Your task to perform on an android device: Add usb-c to usb-a to the cart on ebay Image 0: 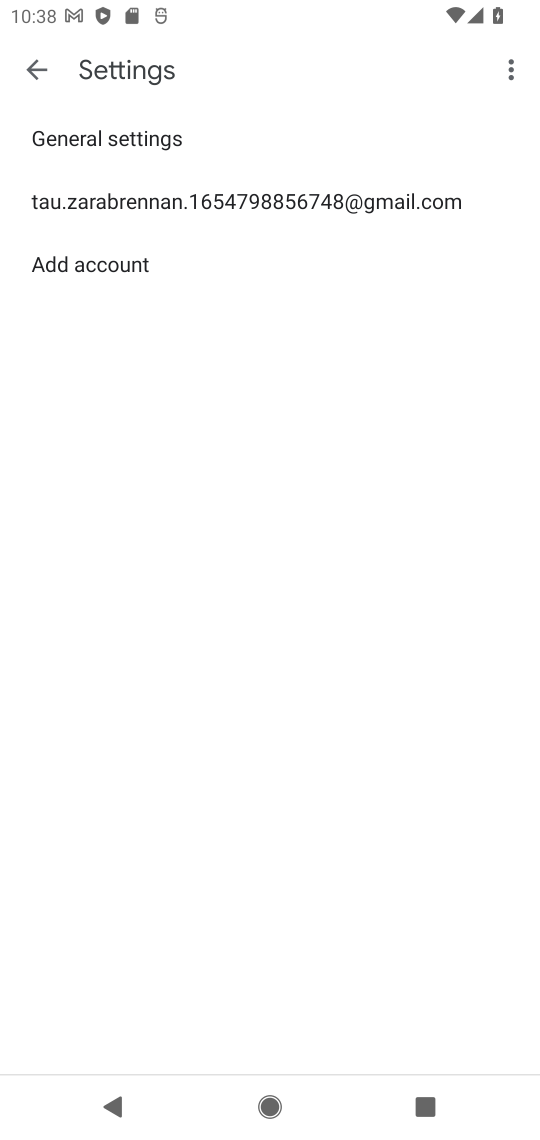
Step 0: press home button
Your task to perform on an android device: Add usb-c to usb-a to the cart on ebay Image 1: 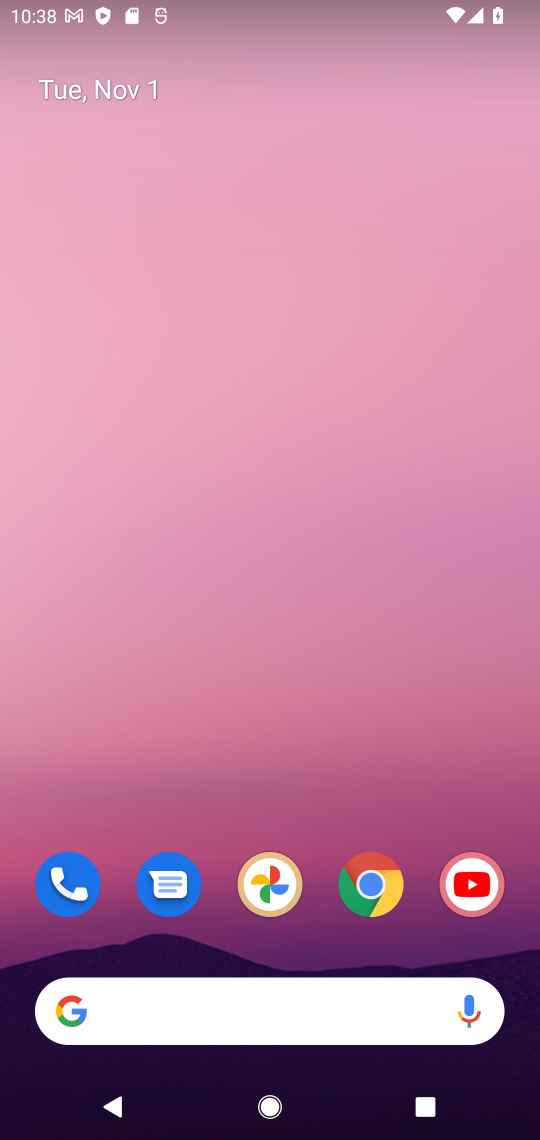
Step 1: click (368, 901)
Your task to perform on an android device: Add usb-c to usb-a to the cart on ebay Image 2: 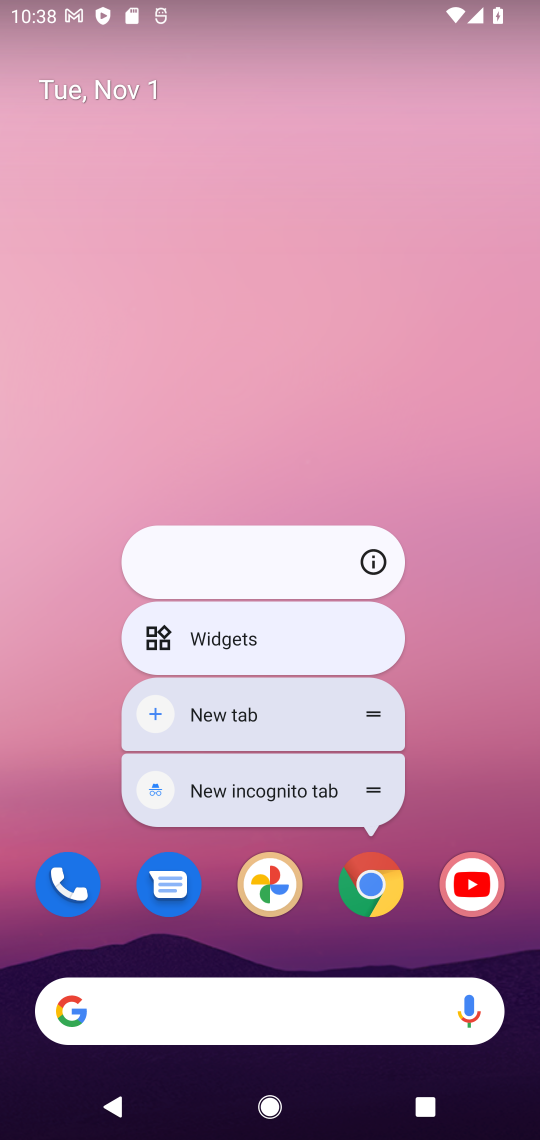
Step 2: click (370, 899)
Your task to perform on an android device: Add usb-c to usb-a to the cart on ebay Image 3: 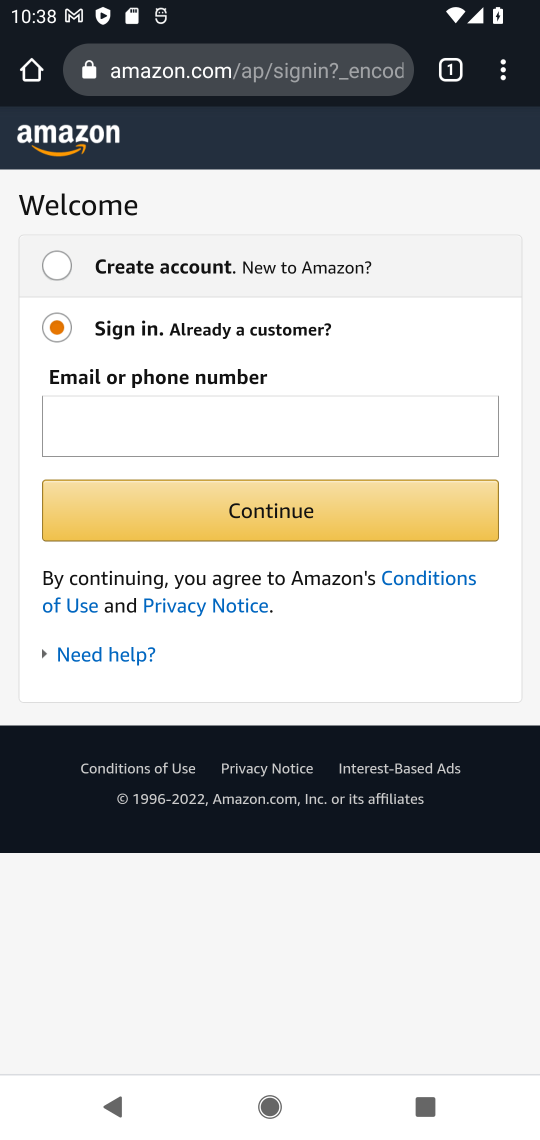
Step 3: click (290, 81)
Your task to perform on an android device: Add usb-c to usb-a to the cart on ebay Image 4: 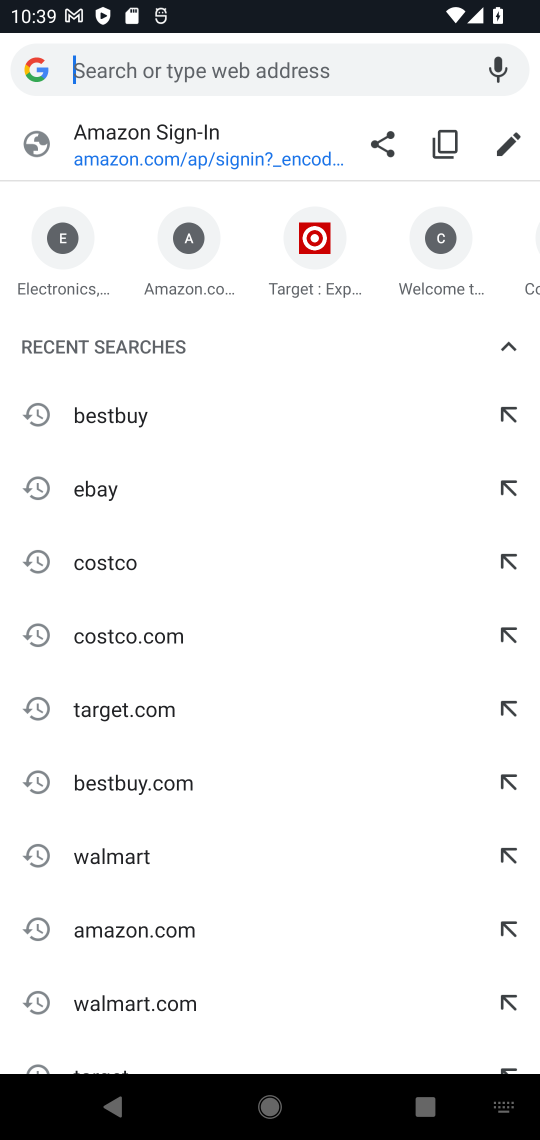
Step 4: type "ebay"
Your task to perform on an android device: Add usb-c to usb-a to the cart on ebay Image 5: 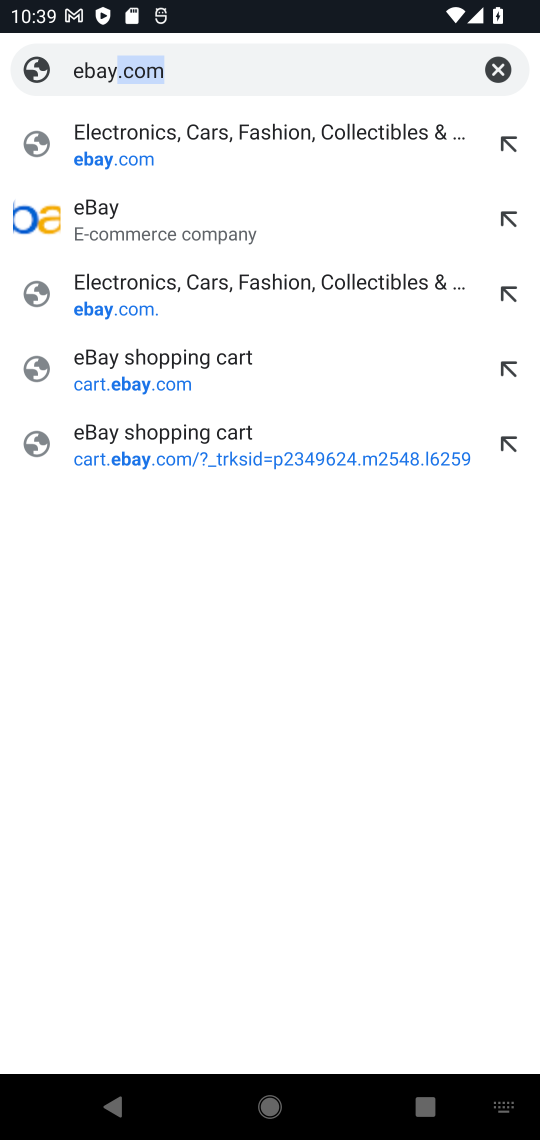
Step 5: press enter
Your task to perform on an android device: Add usb-c to usb-a to the cart on ebay Image 6: 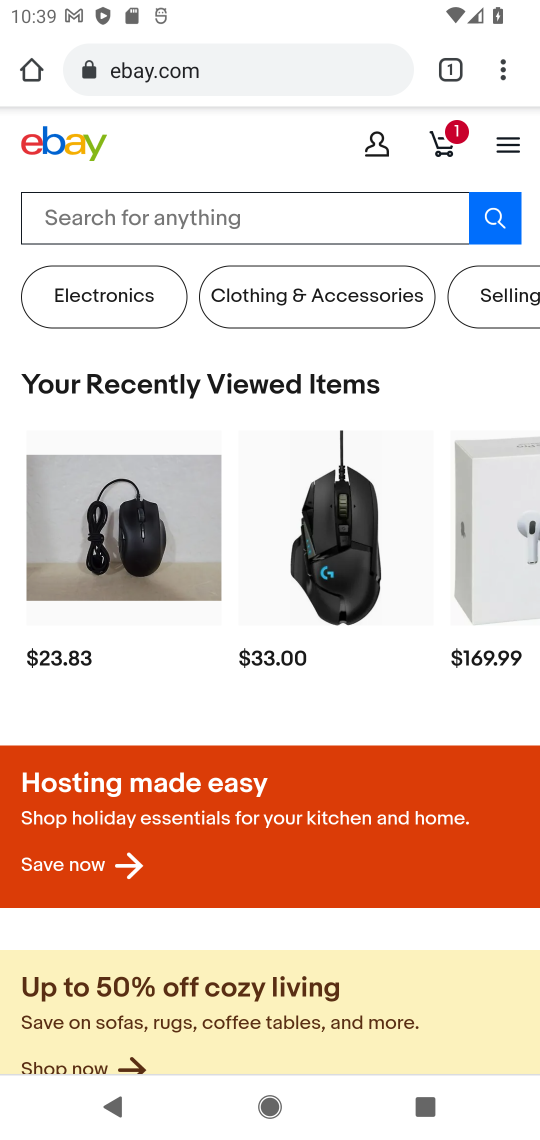
Step 6: click (227, 229)
Your task to perform on an android device: Add usb-c to usb-a to the cart on ebay Image 7: 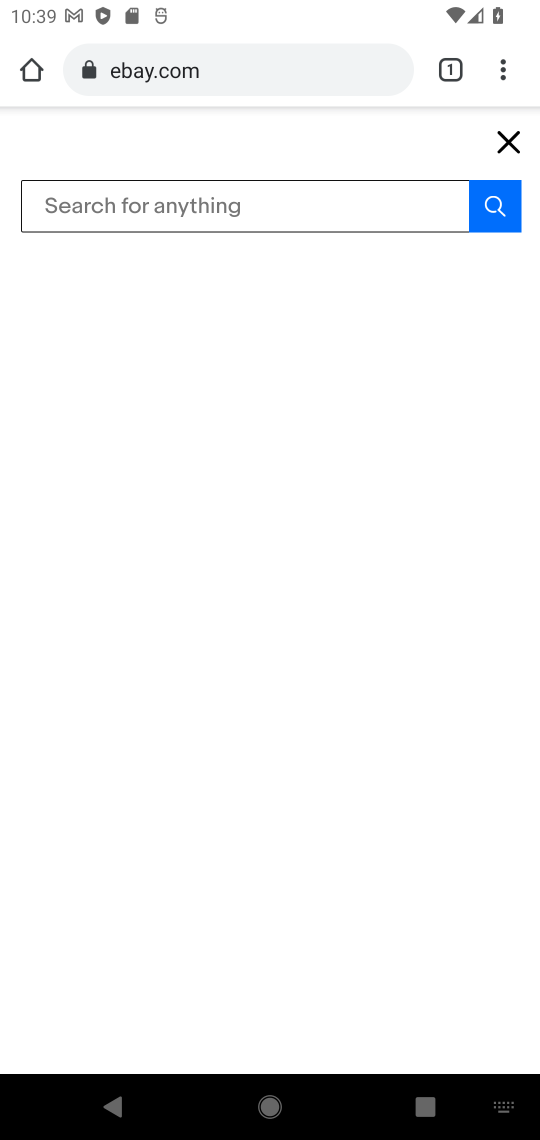
Step 7: type "usb-c to usb-a"
Your task to perform on an android device: Add usb-c to usb-a to the cart on ebay Image 8: 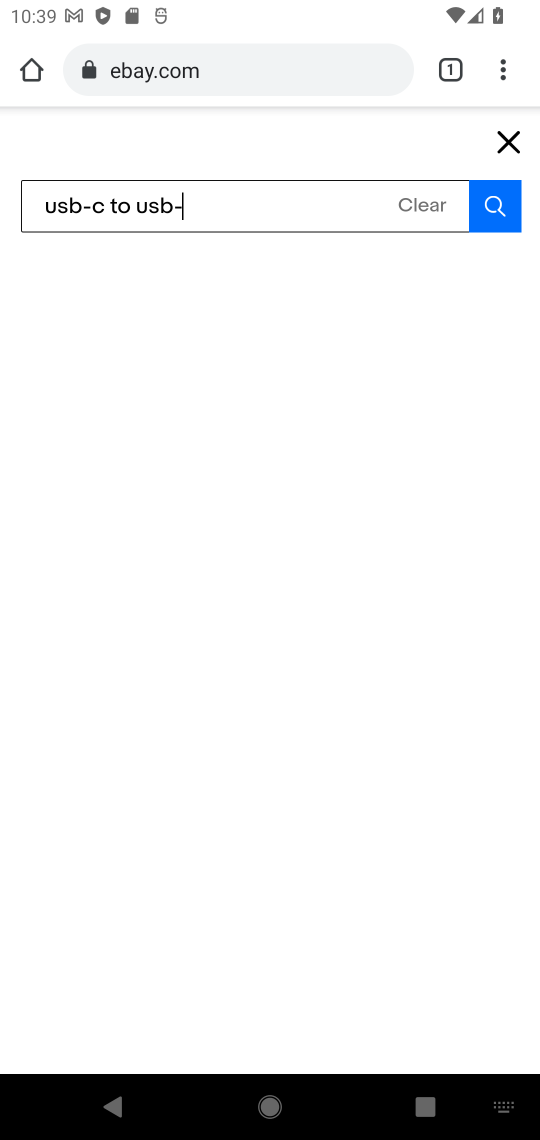
Step 8: type ""
Your task to perform on an android device: Add usb-c to usb-a to the cart on ebay Image 9: 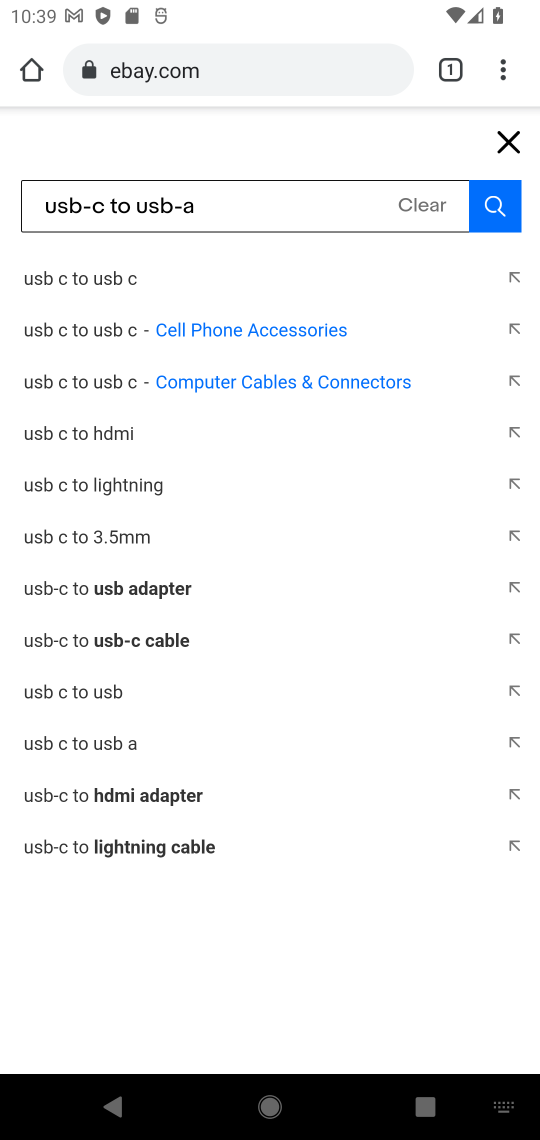
Step 9: click (506, 211)
Your task to perform on an android device: Add usb-c to usb-a to the cart on ebay Image 10: 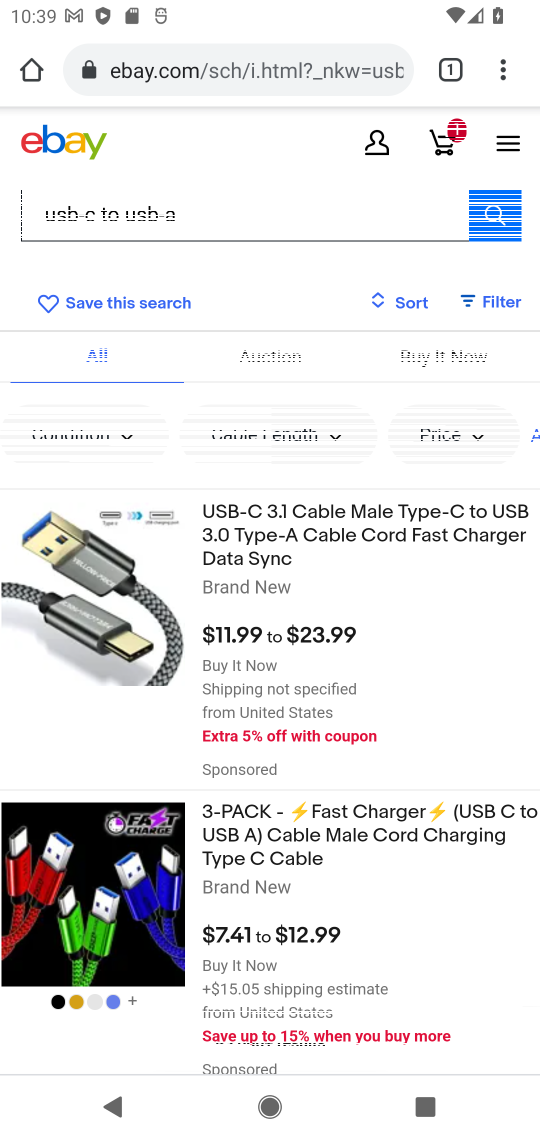
Step 10: click (349, 541)
Your task to perform on an android device: Add usb-c to usb-a to the cart on ebay Image 11: 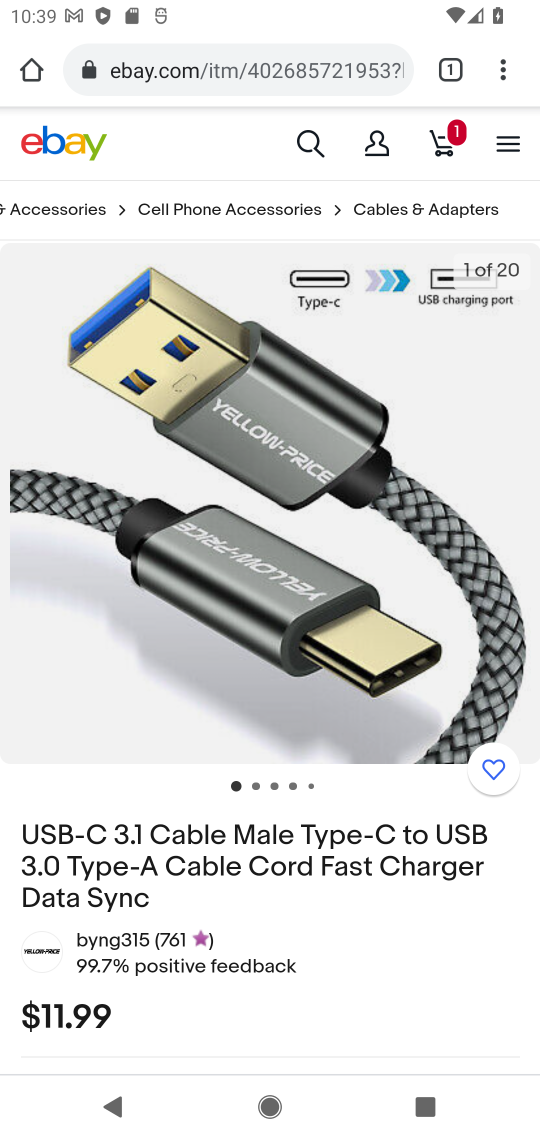
Step 11: drag from (414, 877) to (433, 324)
Your task to perform on an android device: Add usb-c to usb-a to the cart on ebay Image 12: 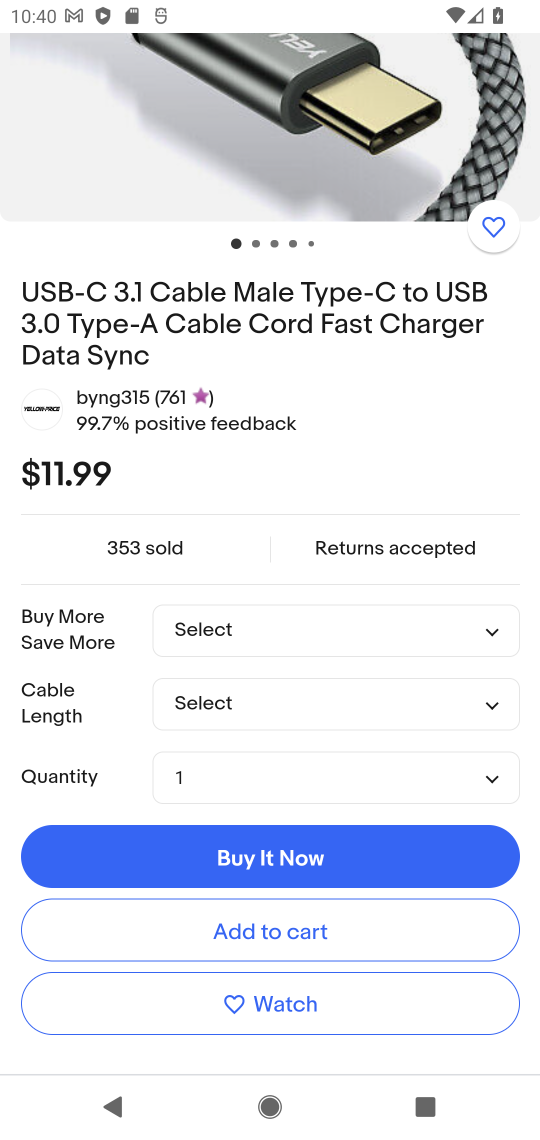
Step 12: click (214, 940)
Your task to perform on an android device: Add usb-c to usb-a to the cart on ebay Image 13: 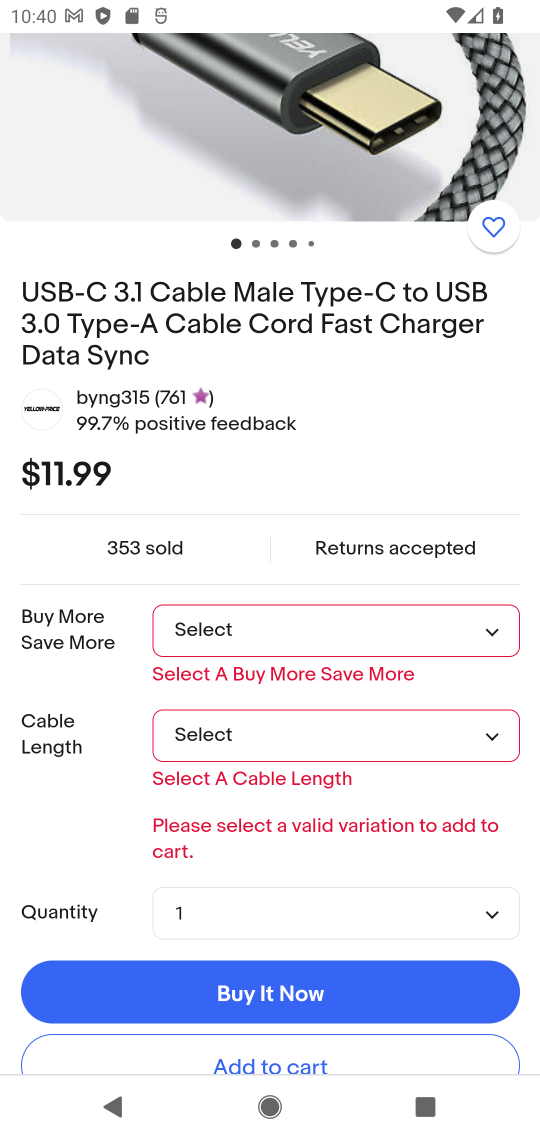
Step 13: click (303, 637)
Your task to perform on an android device: Add usb-c to usb-a to the cart on ebay Image 14: 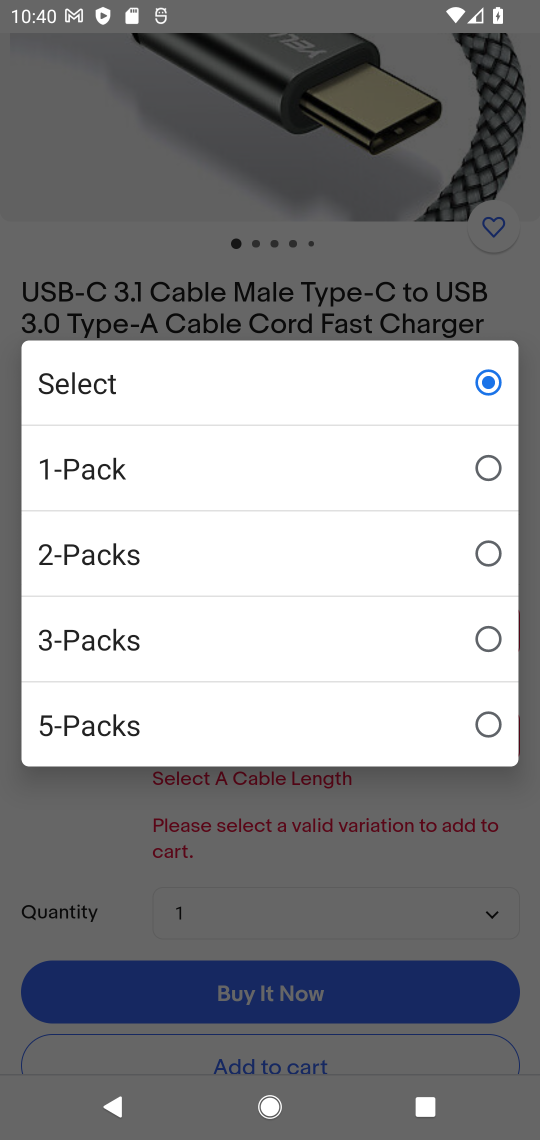
Step 14: click (293, 481)
Your task to perform on an android device: Add usb-c to usb-a to the cart on ebay Image 15: 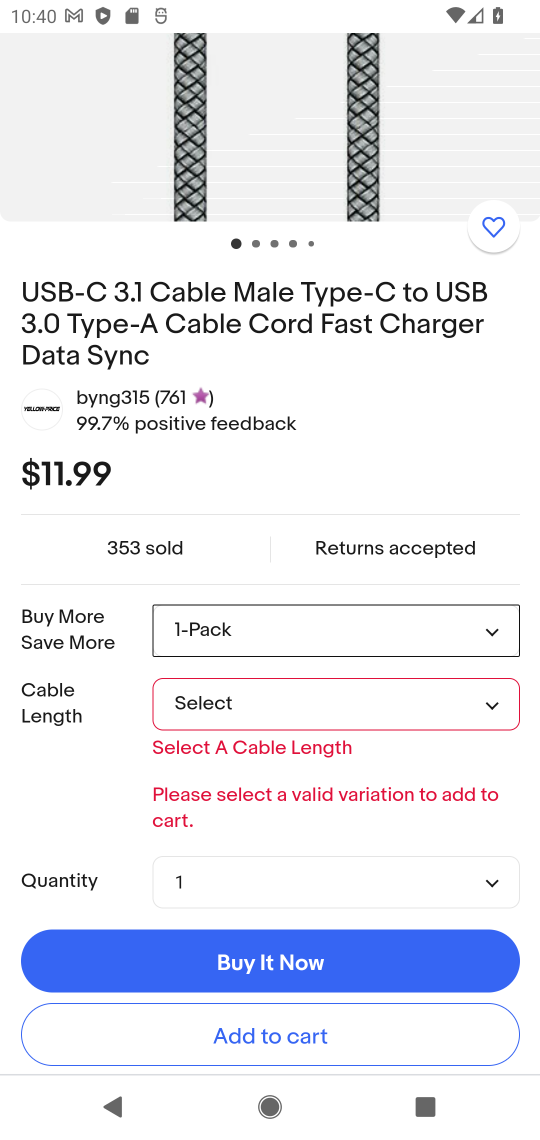
Step 15: click (326, 701)
Your task to perform on an android device: Add usb-c to usb-a to the cart on ebay Image 16: 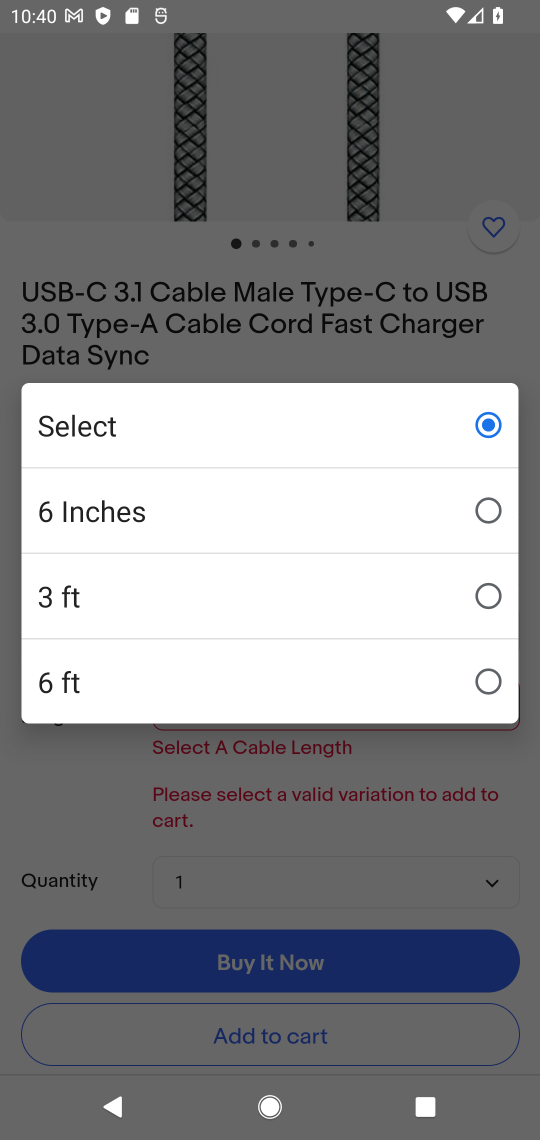
Step 16: click (324, 529)
Your task to perform on an android device: Add usb-c to usb-a to the cart on ebay Image 17: 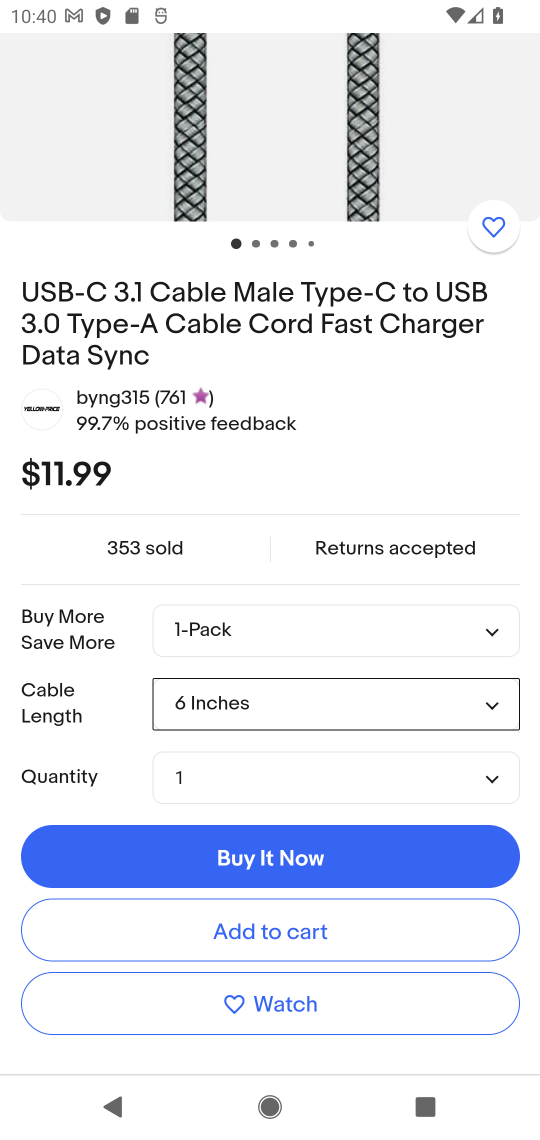
Step 17: click (303, 924)
Your task to perform on an android device: Add usb-c to usb-a to the cart on ebay Image 18: 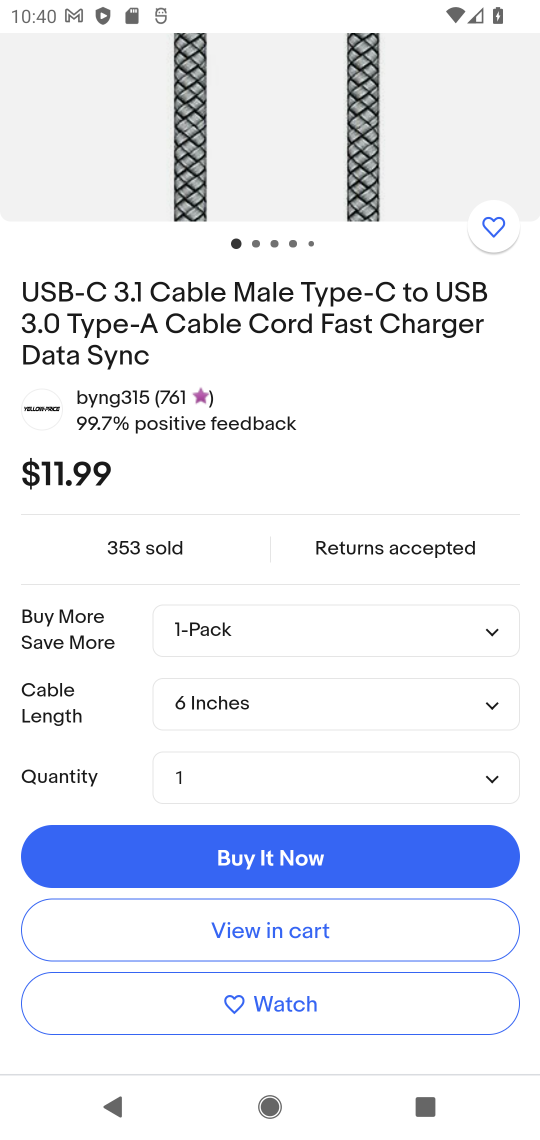
Step 18: click (304, 926)
Your task to perform on an android device: Add usb-c to usb-a to the cart on ebay Image 19: 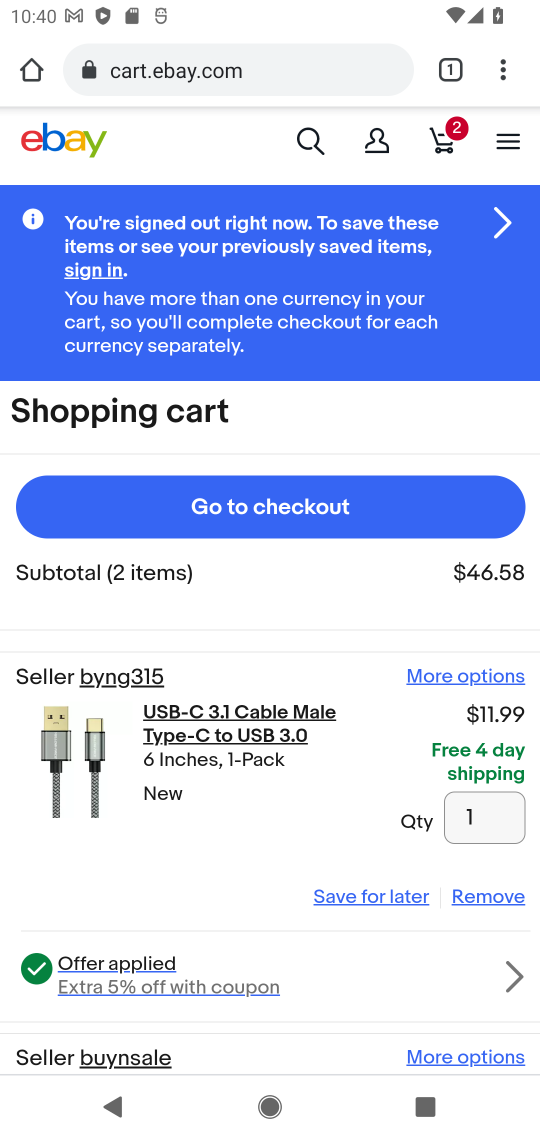
Step 19: task complete